Your task to perform on an android device: see tabs open on other devices in the chrome app Image 0: 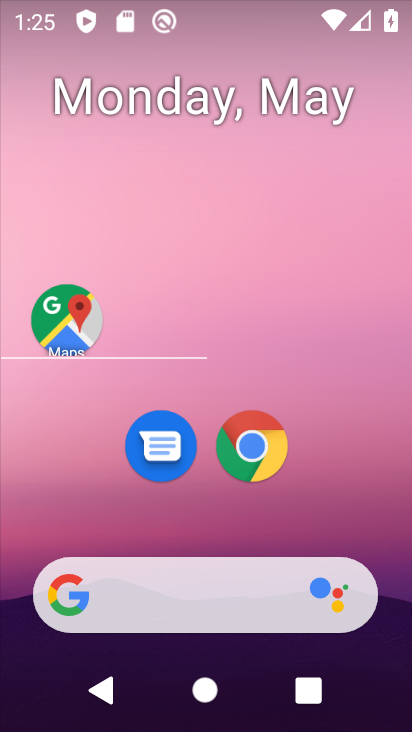
Step 0: click (265, 138)
Your task to perform on an android device: see tabs open on other devices in the chrome app Image 1: 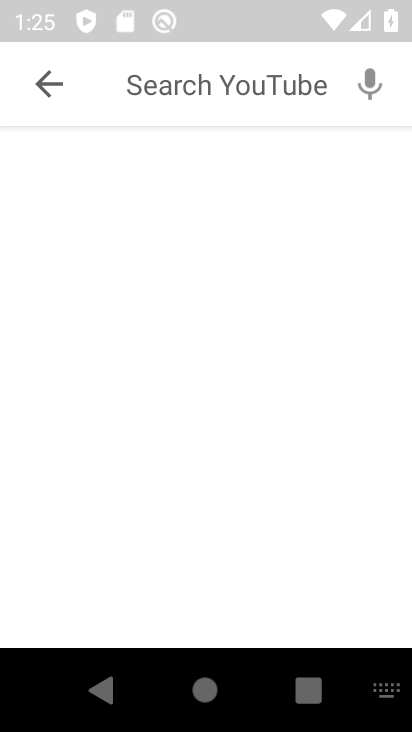
Step 1: press home button
Your task to perform on an android device: see tabs open on other devices in the chrome app Image 2: 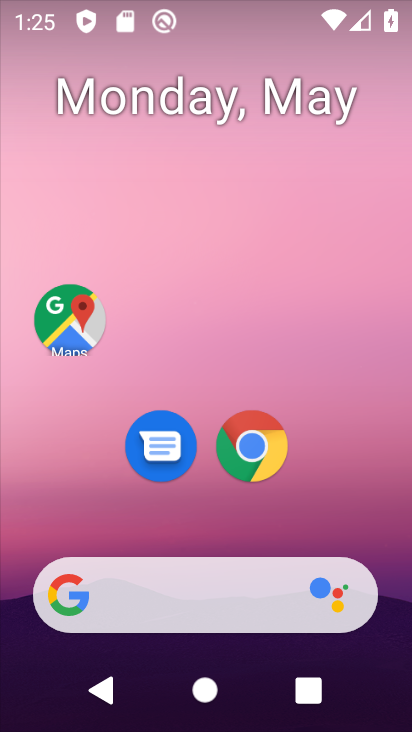
Step 2: drag from (248, 613) to (278, 199)
Your task to perform on an android device: see tabs open on other devices in the chrome app Image 3: 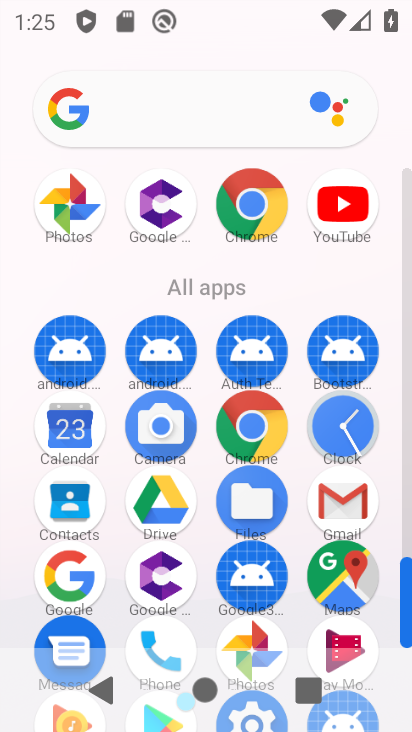
Step 3: click (254, 632)
Your task to perform on an android device: see tabs open on other devices in the chrome app Image 4: 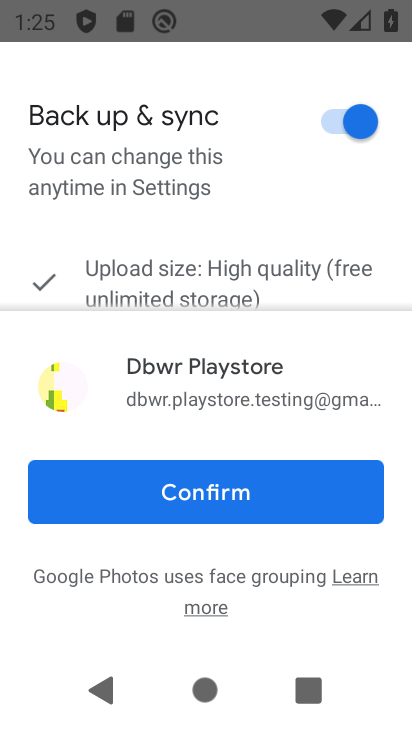
Step 4: click (278, 454)
Your task to perform on an android device: see tabs open on other devices in the chrome app Image 5: 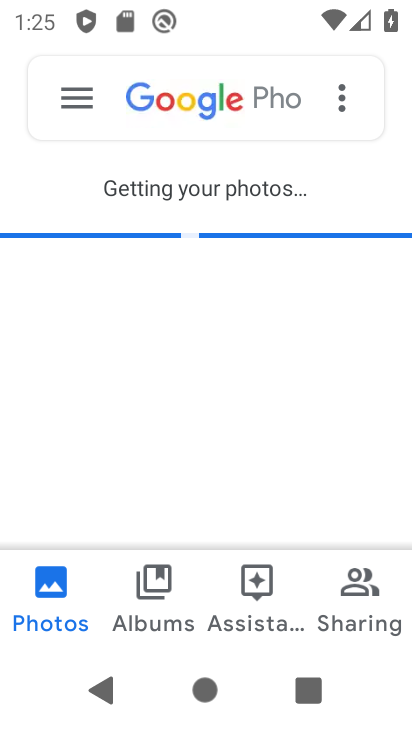
Step 5: click (272, 478)
Your task to perform on an android device: see tabs open on other devices in the chrome app Image 6: 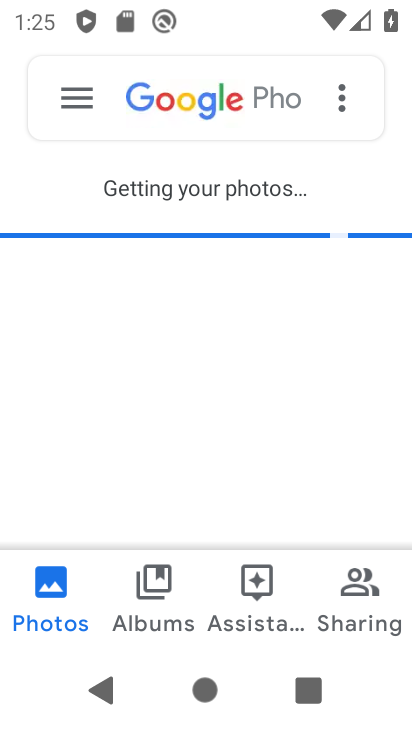
Step 6: click (252, 620)
Your task to perform on an android device: see tabs open on other devices in the chrome app Image 7: 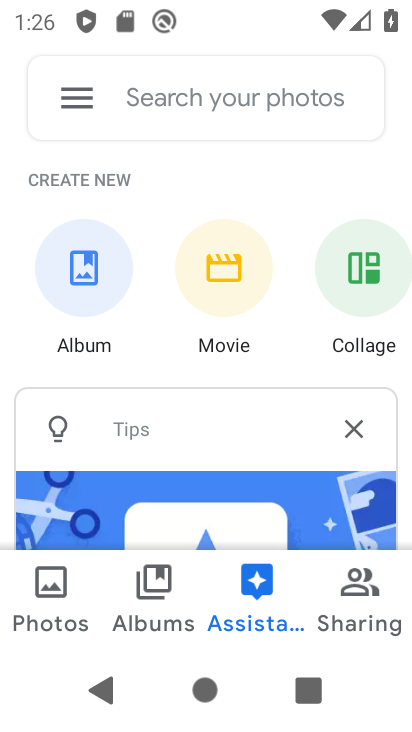
Step 7: task complete